Your task to perform on an android device: Go to Android settings Image 0: 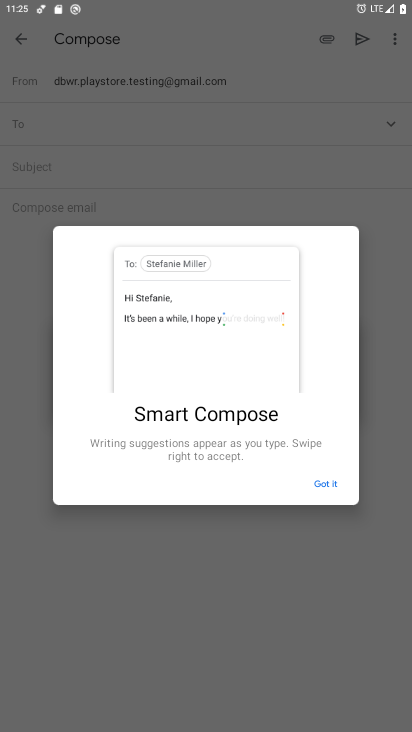
Step 0: press home button
Your task to perform on an android device: Go to Android settings Image 1: 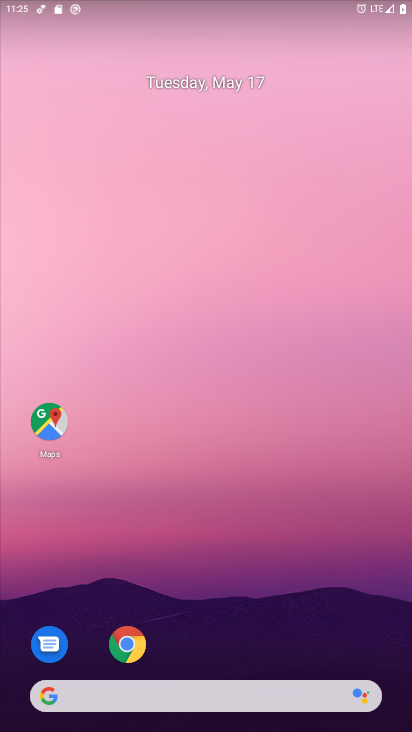
Step 1: drag from (215, 649) to (213, 40)
Your task to perform on an android device: Go to Android settings Image 2: 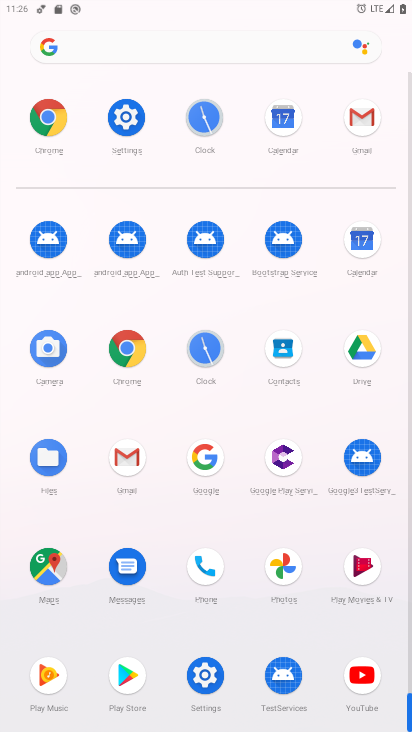
Step 2: click (200, 668)
Your task to perform on an android device: Go to Android settings Image 3: 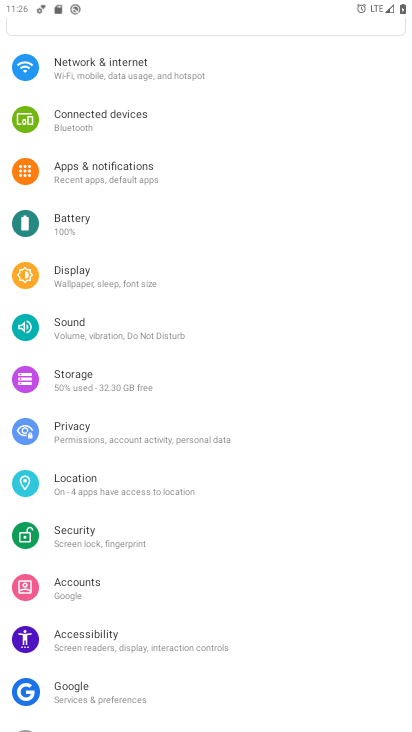
Step 3: drag from (139, 681) to (166, 265)
Your task to perform on an android device: Go to Android settings Image 4: 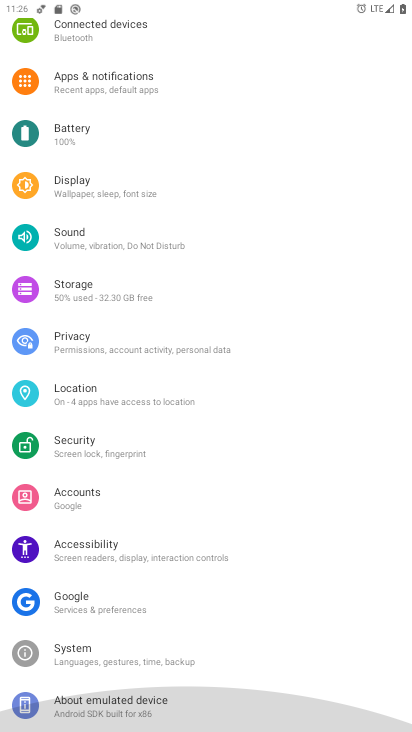
Step 4: click (168, 135)
Your task to perform on an android device: Go to Android settings Image 5: 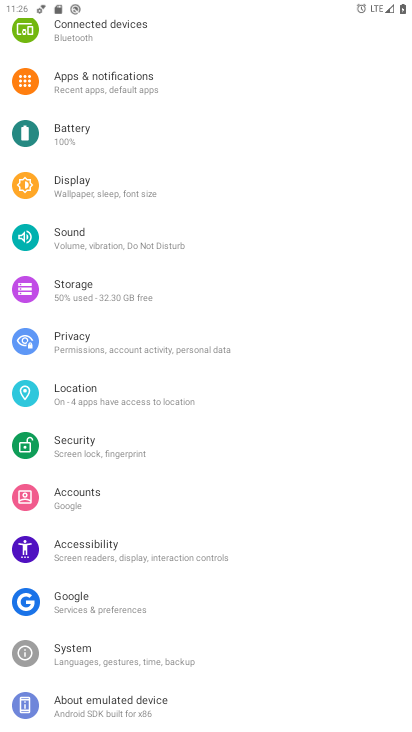
Step 5: click (159, 710)
Your task to perform on an android device: Go to Android settings Image 6: 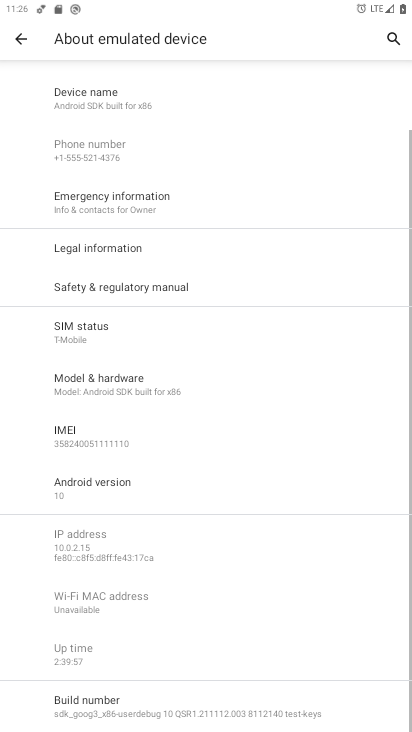
Step 6: click (133, 493)
Your task to perform on an android device: Go to Android settings Image 7: 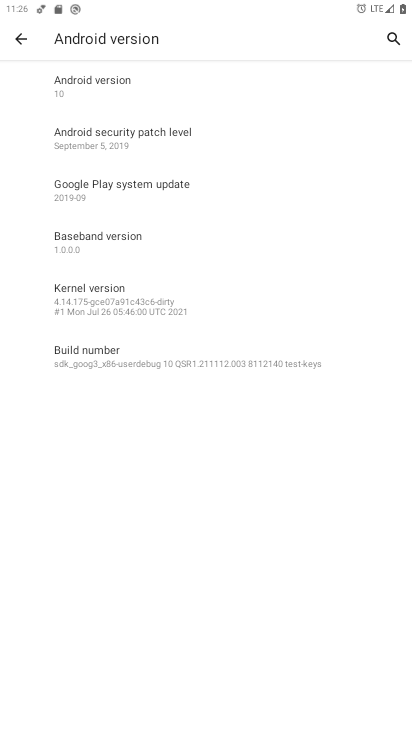
Step 7: task complete